Your task to perform on an android device: Open the calendar app, open the side menu, and click the "Day" option Image 0: 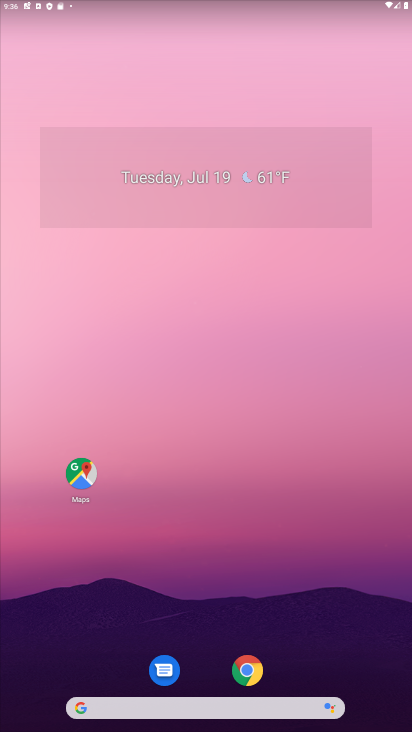
Step 0: drag from (120, 608) to (186, 322)
Your task to perform on an android device: Open the calendar app, open the side menu, and click the "Day" option Image 1: 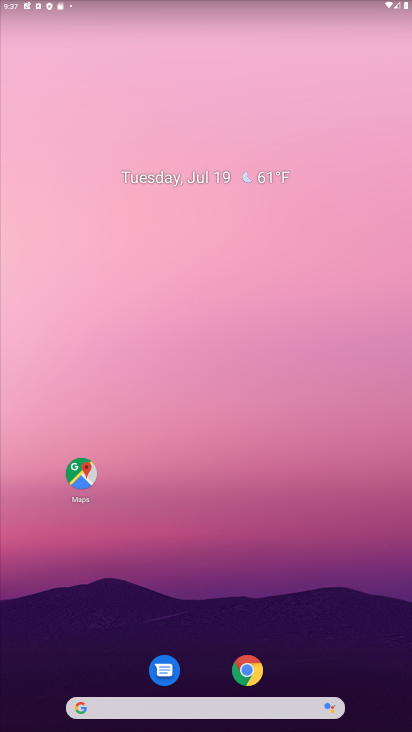
Step 1: drag from (225, 730) to (293, 290)
Your task to perform on an android device: Open the calendar app, open the side menu, and click the "Day" option Image 2: 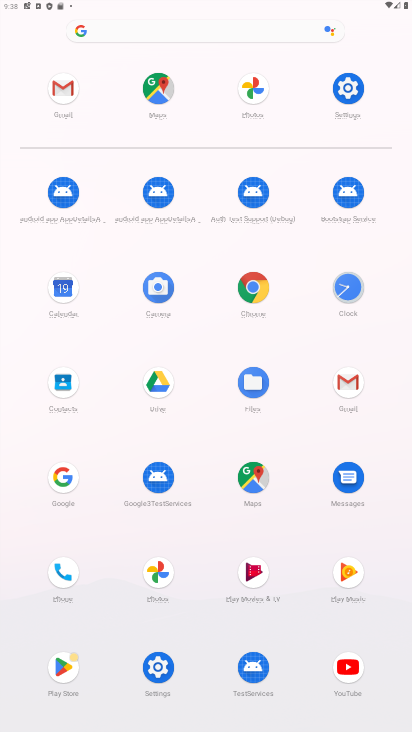
Step 2: click (65, 298)
Your task to perform on an android device: Open the calendar app, open the side menu, and click the "Day" option Image 3: 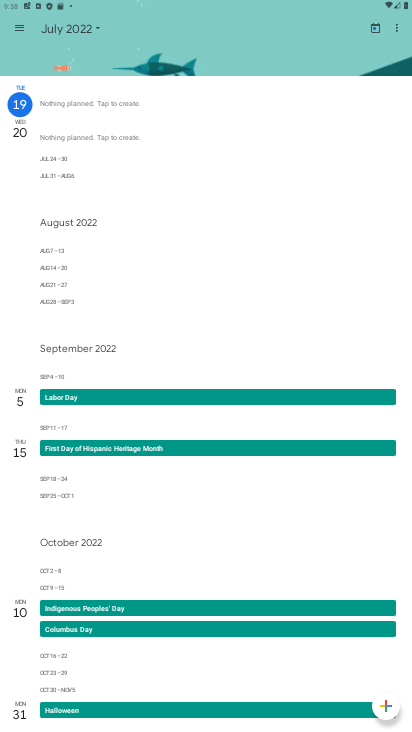
Step 3: click (16, 27)
Your task to perform on an android device: Open the calendar app, open the side menu, and click the "Day" option Image 4: 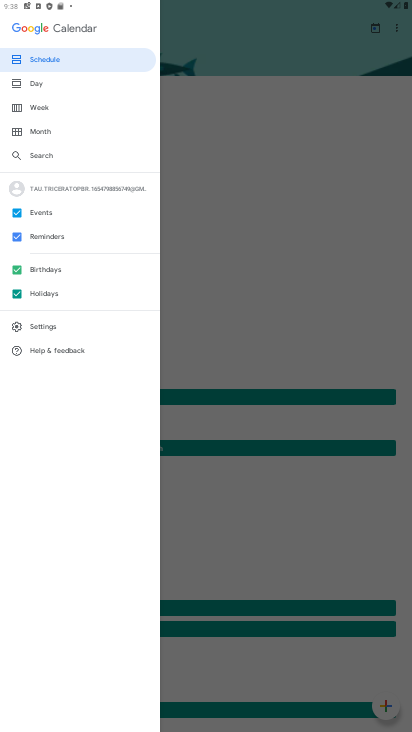
Step 4: click (35, 83)
Your task to perform on an android device: Open the calendar app, open the side menu, and click the "Day" option Image 5: 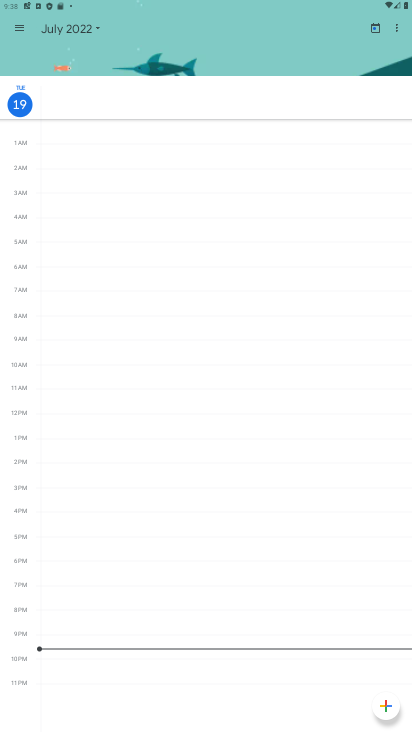
Step 5: click (21, 19)
Your task to perform on an android device: Open the calendar app, open the side menu, and click the "Day" option Image 6: 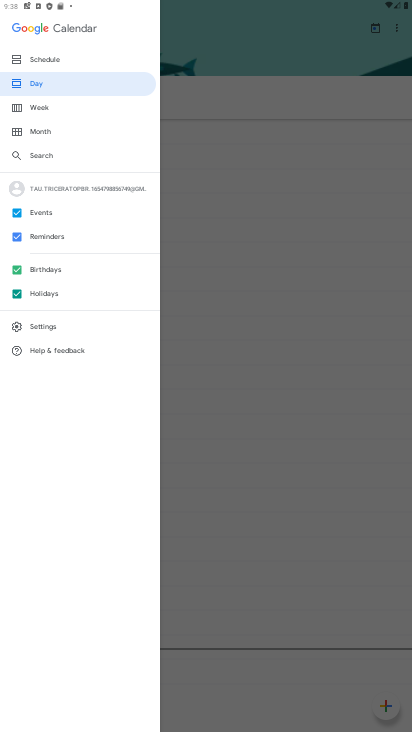
Step 6: task complete